Your task to perform on an android device: turn off location Image 0: 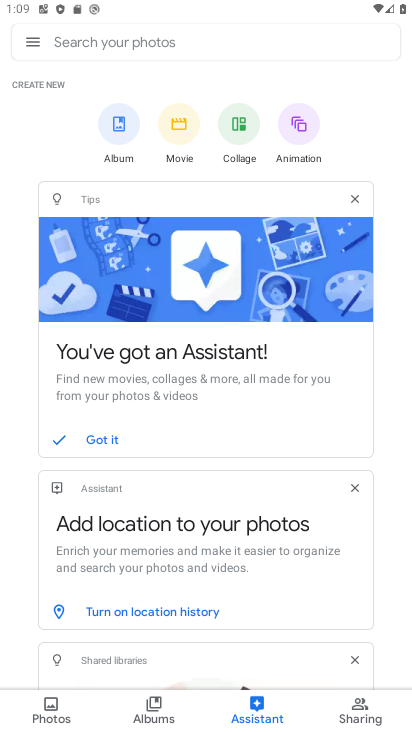
Step 0: press home button
Your task to perform on an android device: turn off location Image 1: 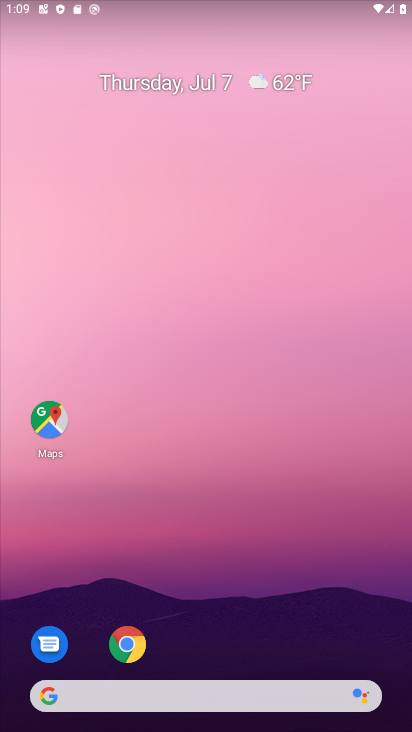
Step 1: drag from (208, 397) to (239, 57)
Your task to perform on an android device: turn off location Image 2: 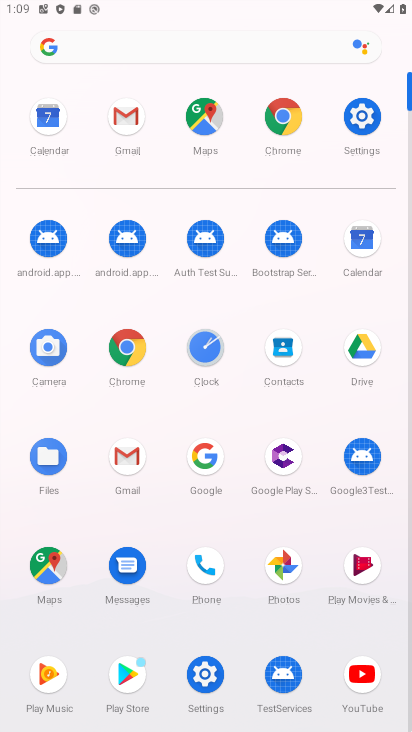
Step 2: click (373, 132)
Your task to perform on an android device: turn off location Image 3: 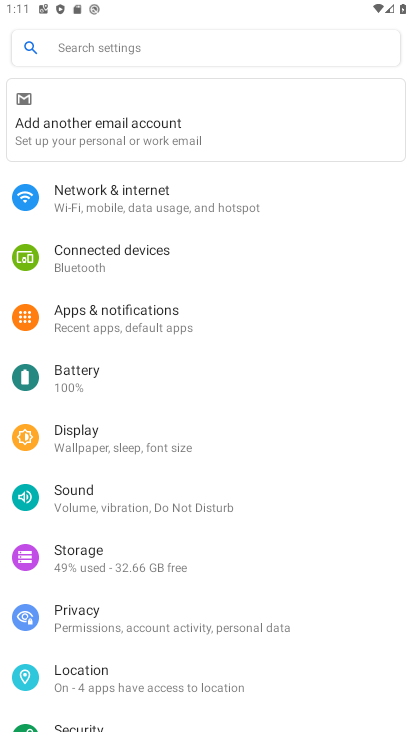
Step 3: click (109, 676)
Your task to perform on an android device: turn off location Image 4: 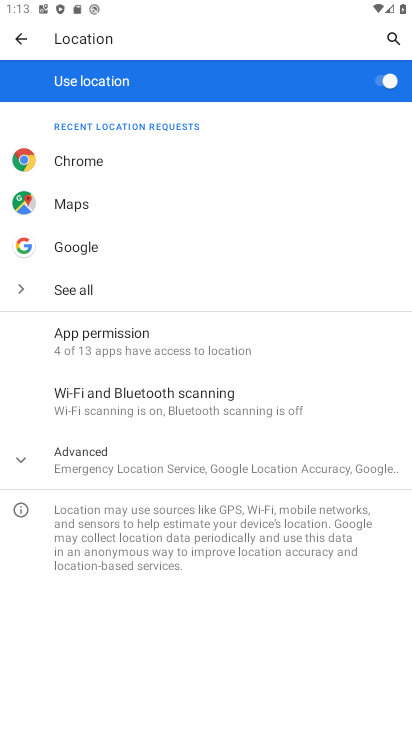
Step 4: click (387, 86)
Your task to perform on an android device: turn off location Image 5: 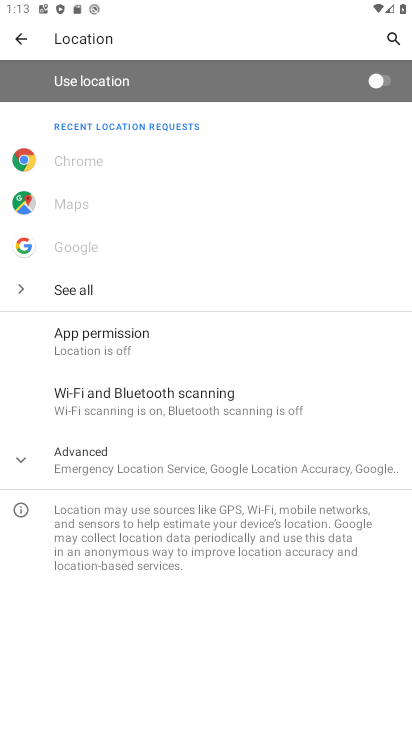
Step 5: task complete